Your task to perform on an android device: What's the weather going to be tomorrow? Image 0: 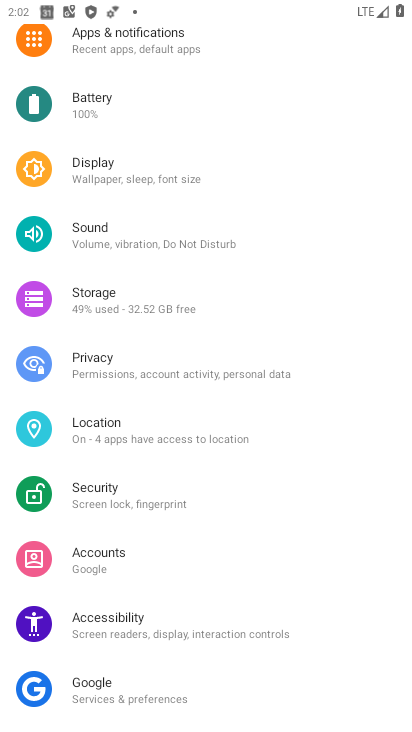
Step 0: press home button
Your task to perform on an android device: What's the weather going to be tomorrow? Image 1: 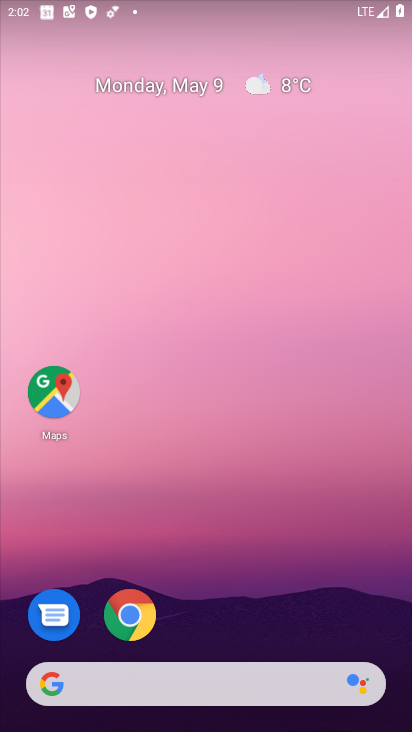
Step 1: click (272, 83)
Your task to perform on an android device: What's the weather going to be tomorrow? Image 2: 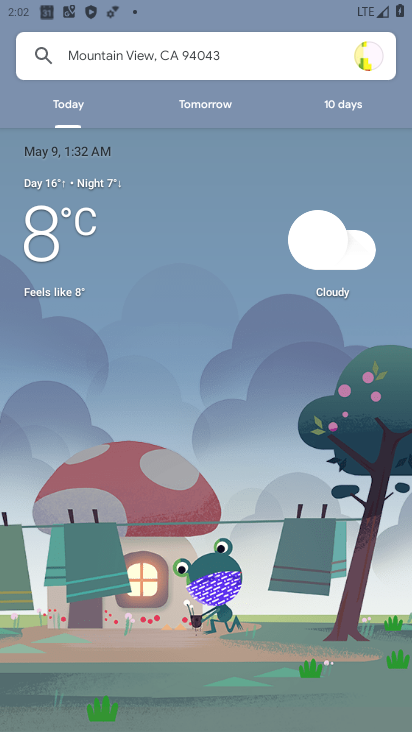
Step 2: click (199, 102)
Your task to perform on an android device: What's the weather going to be tomorrow? Image 3: 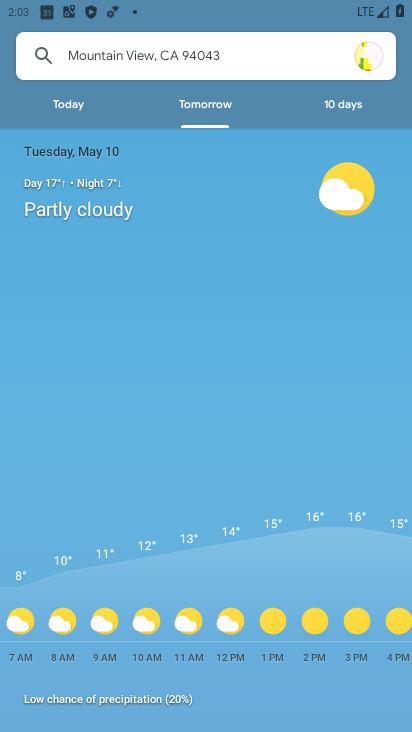
Step 3: task complete